Your task to perform on an android device: toggle javascript in the chrome app Image 0: 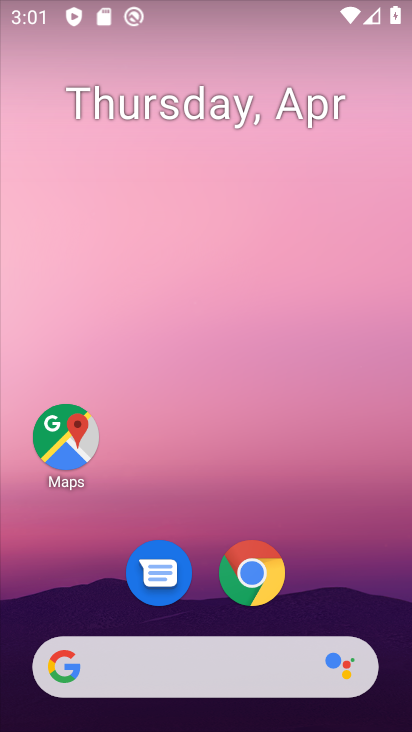
Step 0: drag from (340, 615) to (255, 54)
Your task to perform on an android device: toggle javascript in the chrome app Image 1: 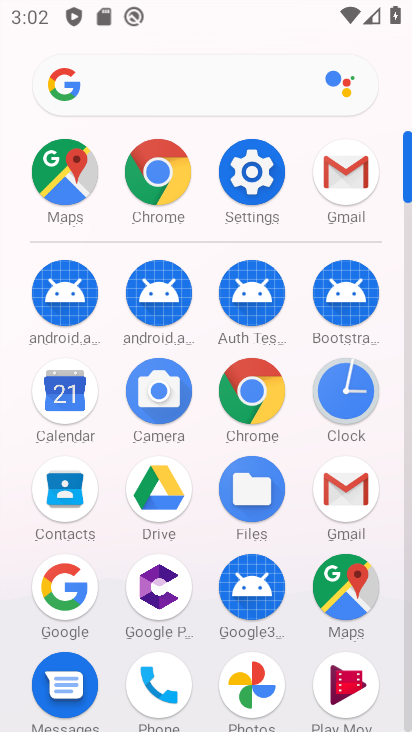
Step 1: click (254, 379)
Your task to perform on an android device: toggle javascript in the chrome app Image 2: 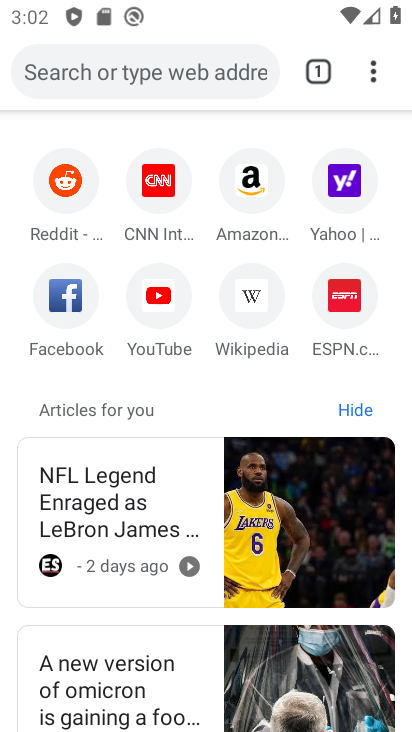
Step 2: click (366, 64)
Your task to perform on an android device: toggle javascript in the chrome app Image 3: 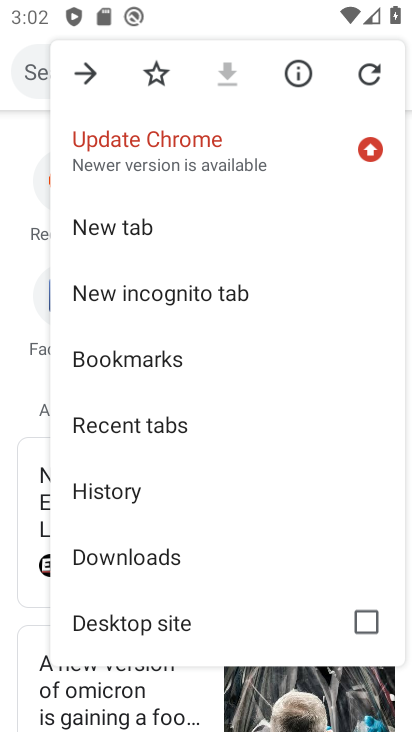
Step 3: drag from (200, 558) to (233, 292)
Your task to perform on an android device: toggle javascript in the chrome app Image 4: 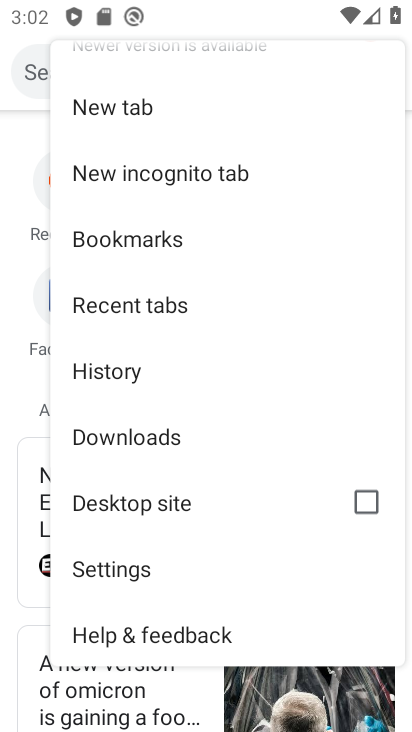
Step 4: click (182, 574)
Your task to perform on an android device: toggle javascript in the chrome app Image 5: 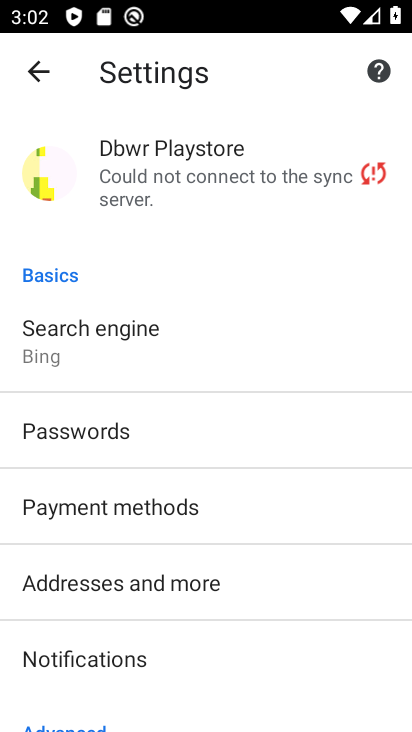
Step 5: drag from (179, 597) to (189, 290)
Your task to perform on an android device: toggle javascript in the chrome app Image 6: 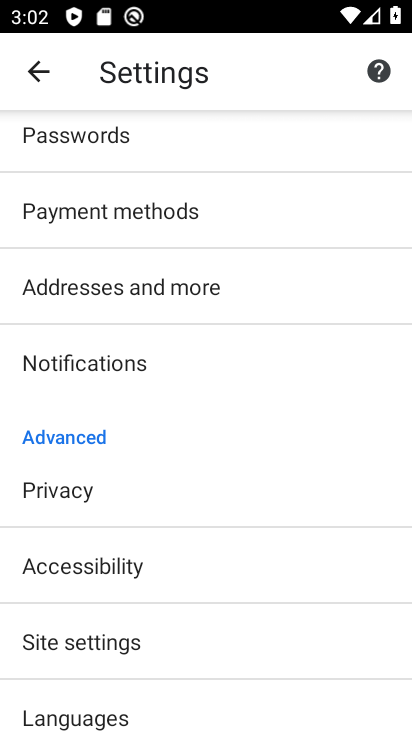
Step 6: click (142, 644)
Your task to perform on an android device: toggle javascript in the chrome app Image 7: 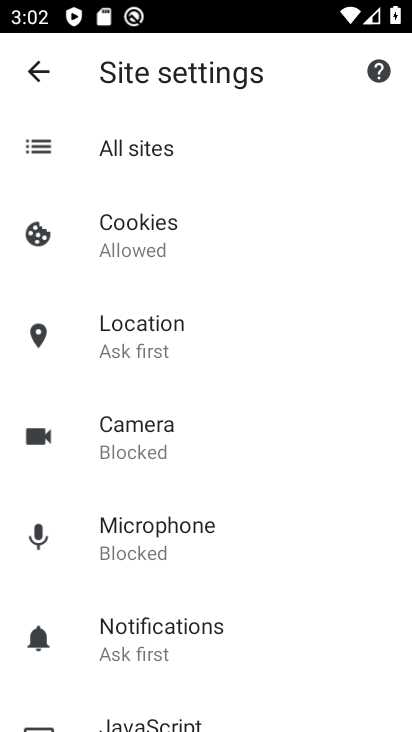
Step 7: click (173, 717)
Your task to perform on an android device: toggle javascript in the chrome app Image 8: 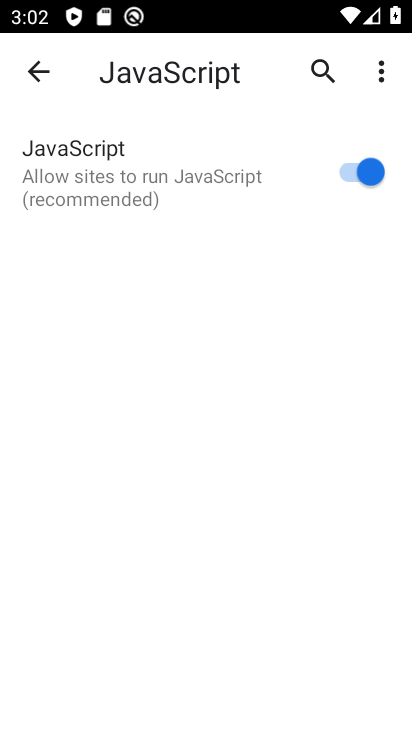
Step 8: click (341, 162)
Your task to perform on an android device: toggle javascript in the chrome app Image 9: 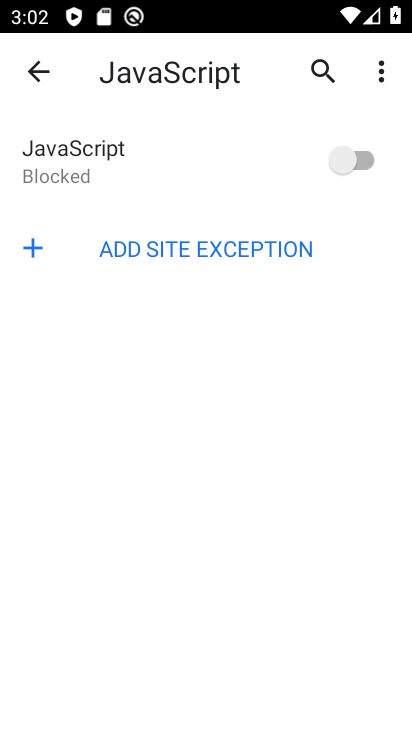
Step 9: task complete